Your task to perform on an android device: open app "Pluto TV - Live TV and Movies" Image 0: 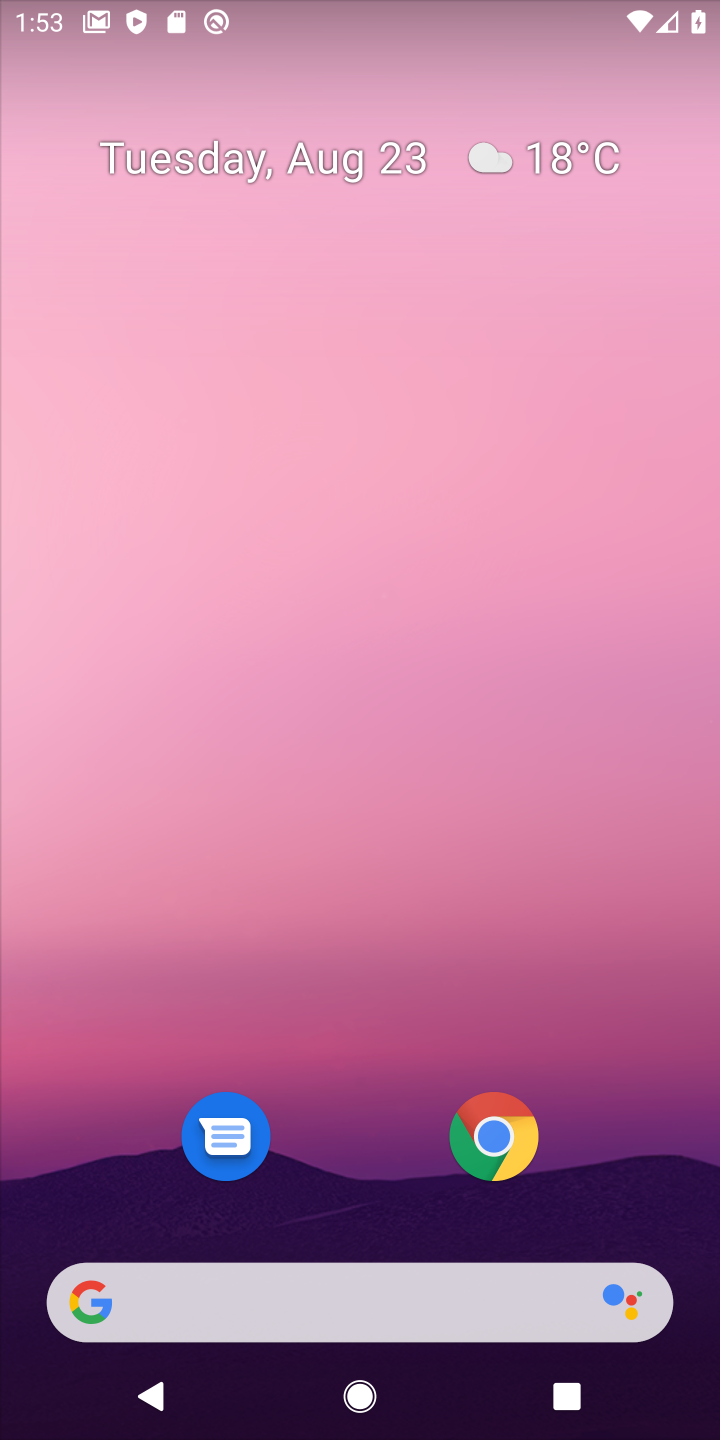
Step 0: press home button
Your task to perform on an android device: open app "Pluto TV - Live TV and Movies" Image 1: 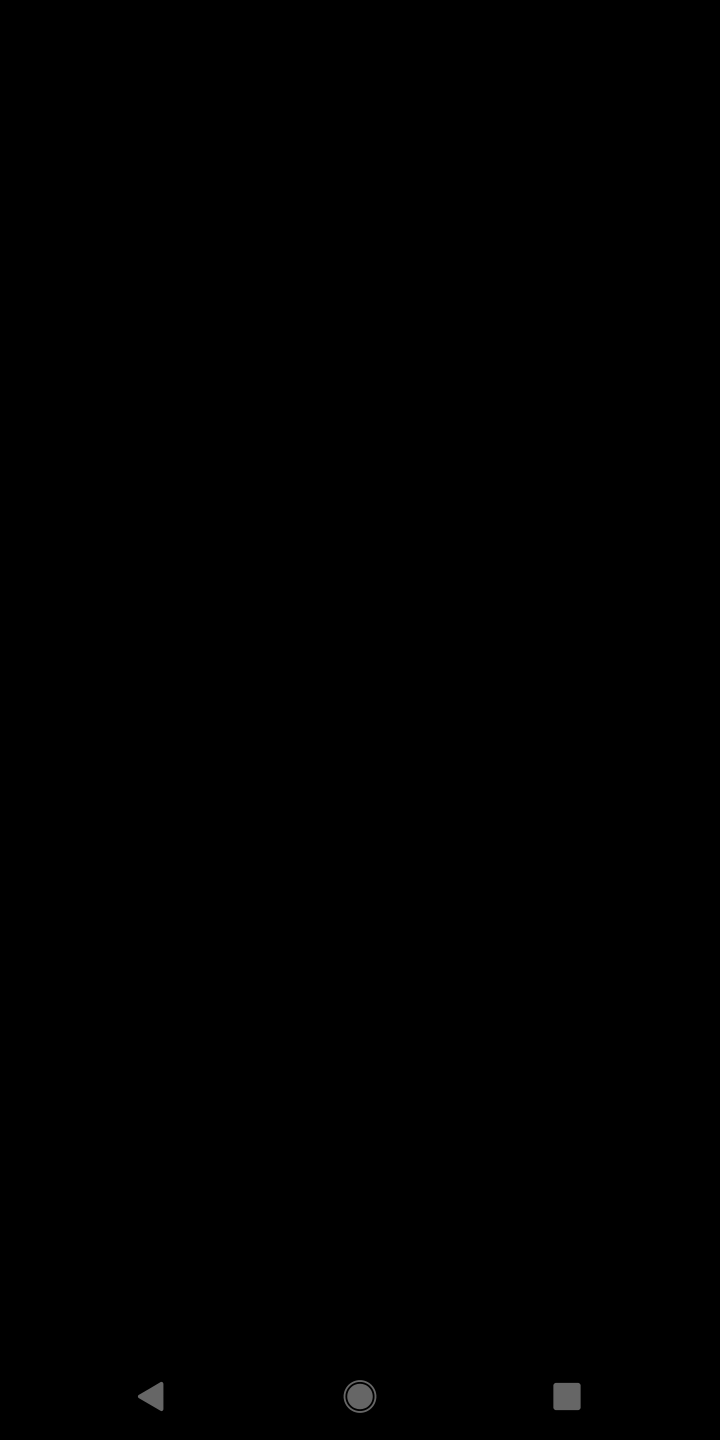
Step 1: press home button
Your task to perform on an android device: open app "Pluto TV - Live TV and Movies" Image 2: 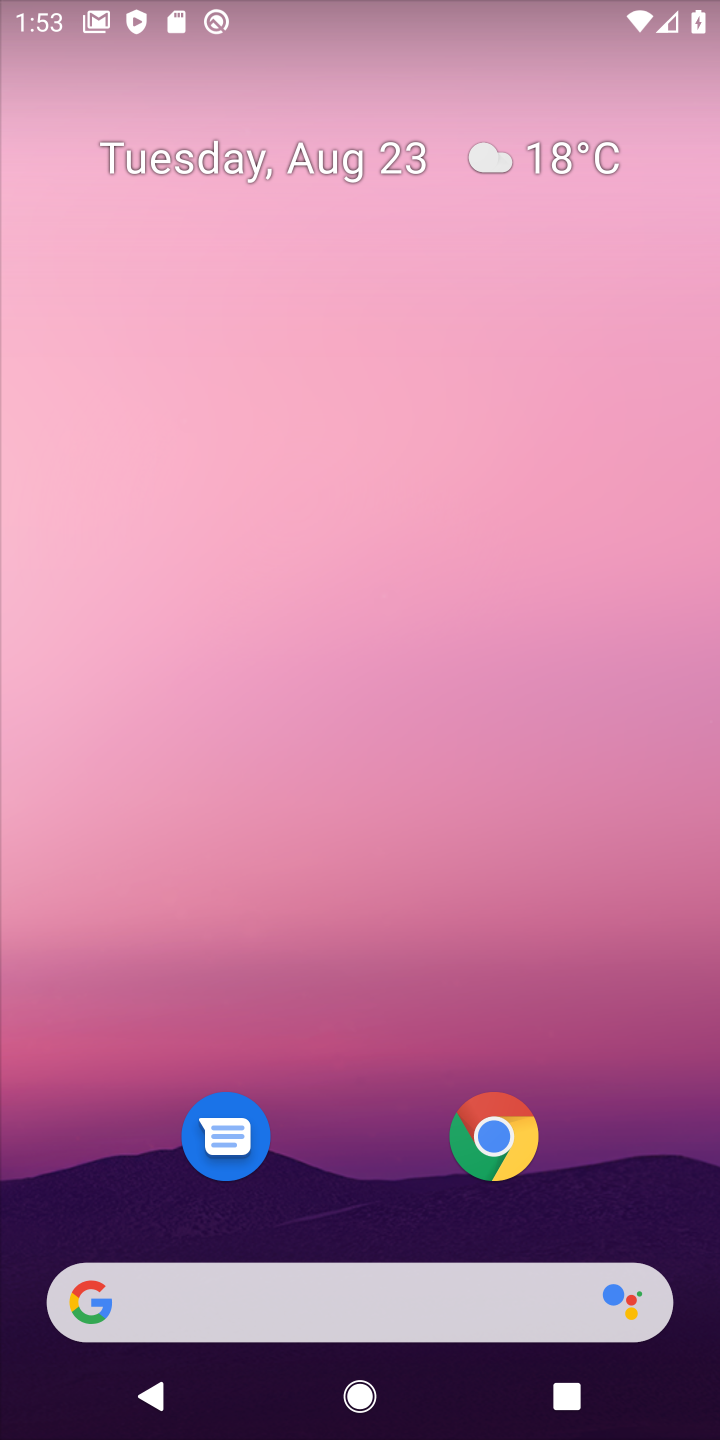
Step 2: drag from (366, 1202) to (398, 92)
Your task to perform on an android device: open app "Pluto TV - Live TV and Movies" Image 3: 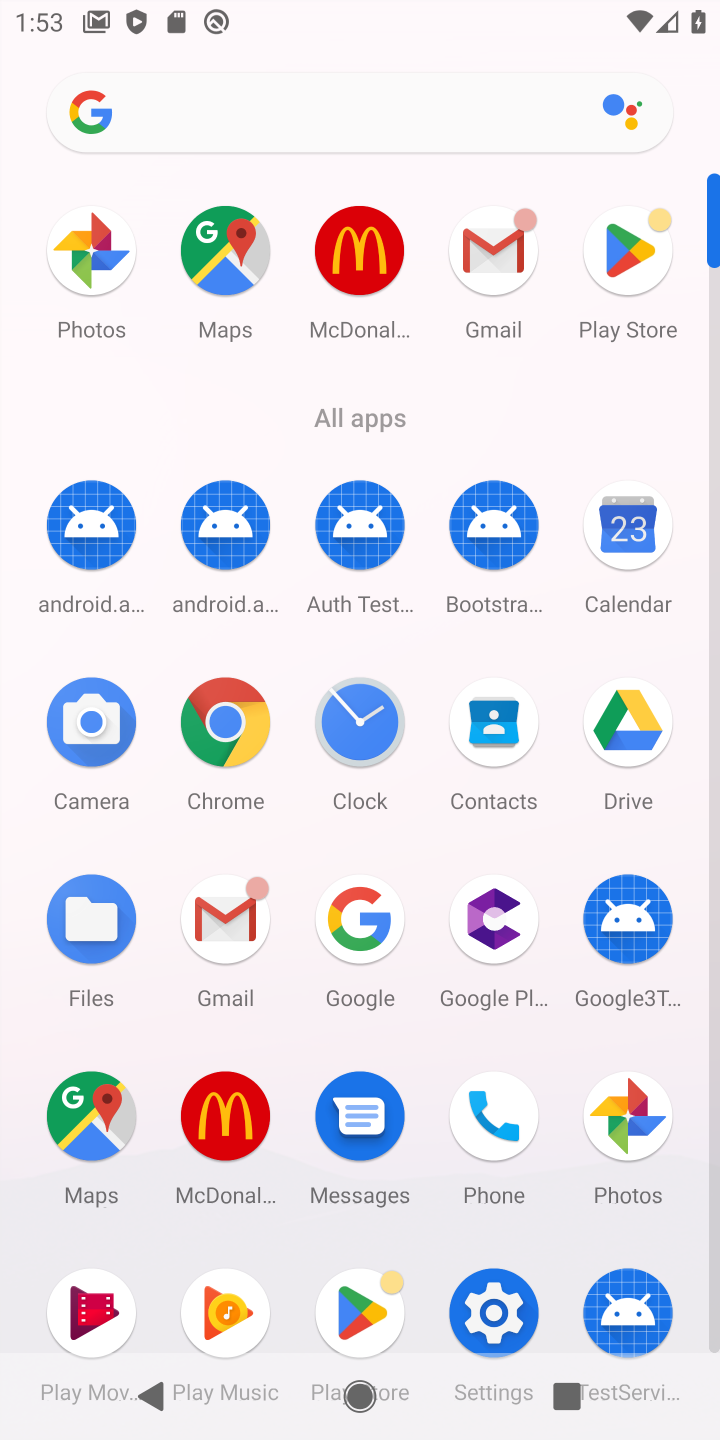
Step 3: click (614, 238)
Your task to perform on an android device: open app "Pluto TV - Live TV and Movies" Image 4: 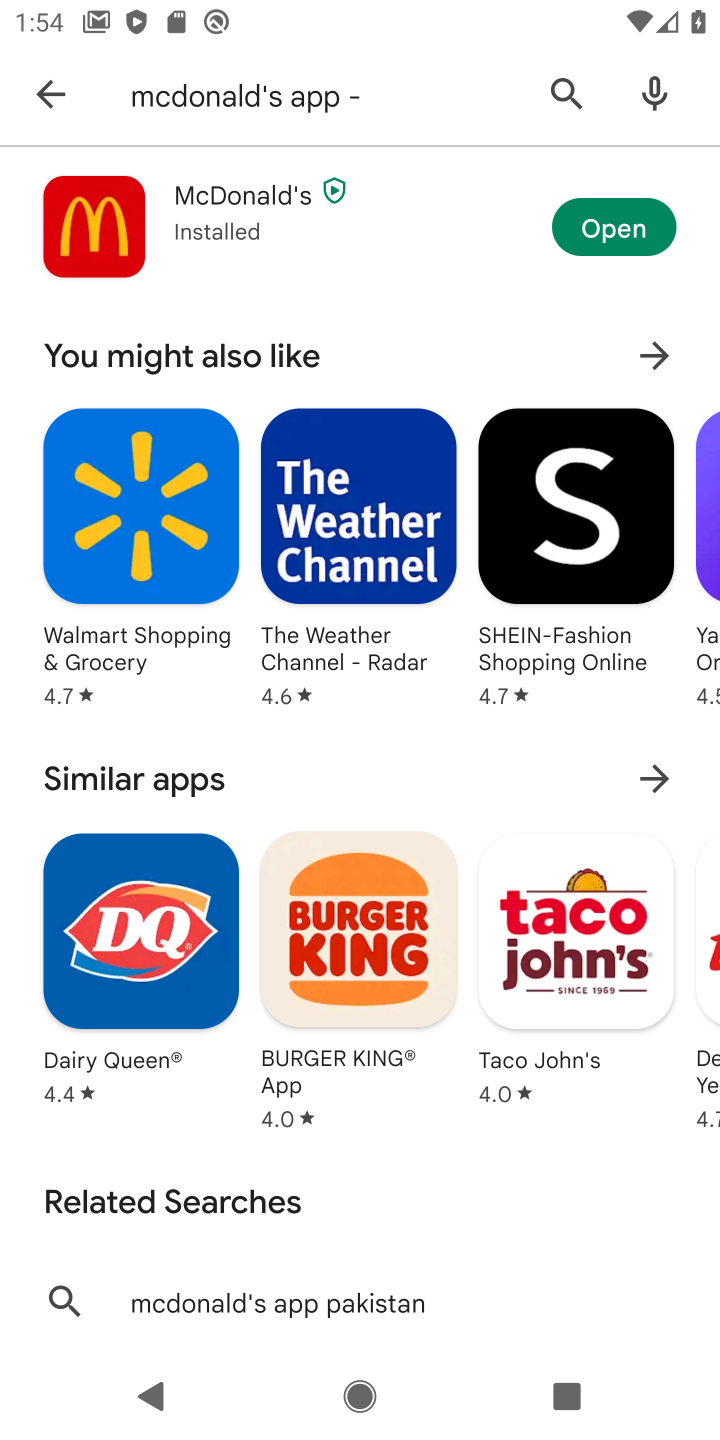
Step 4: click (561, 91)
Your task to perform on an android device: open app "Pluto TV - Live TV and Movies" Image 5: 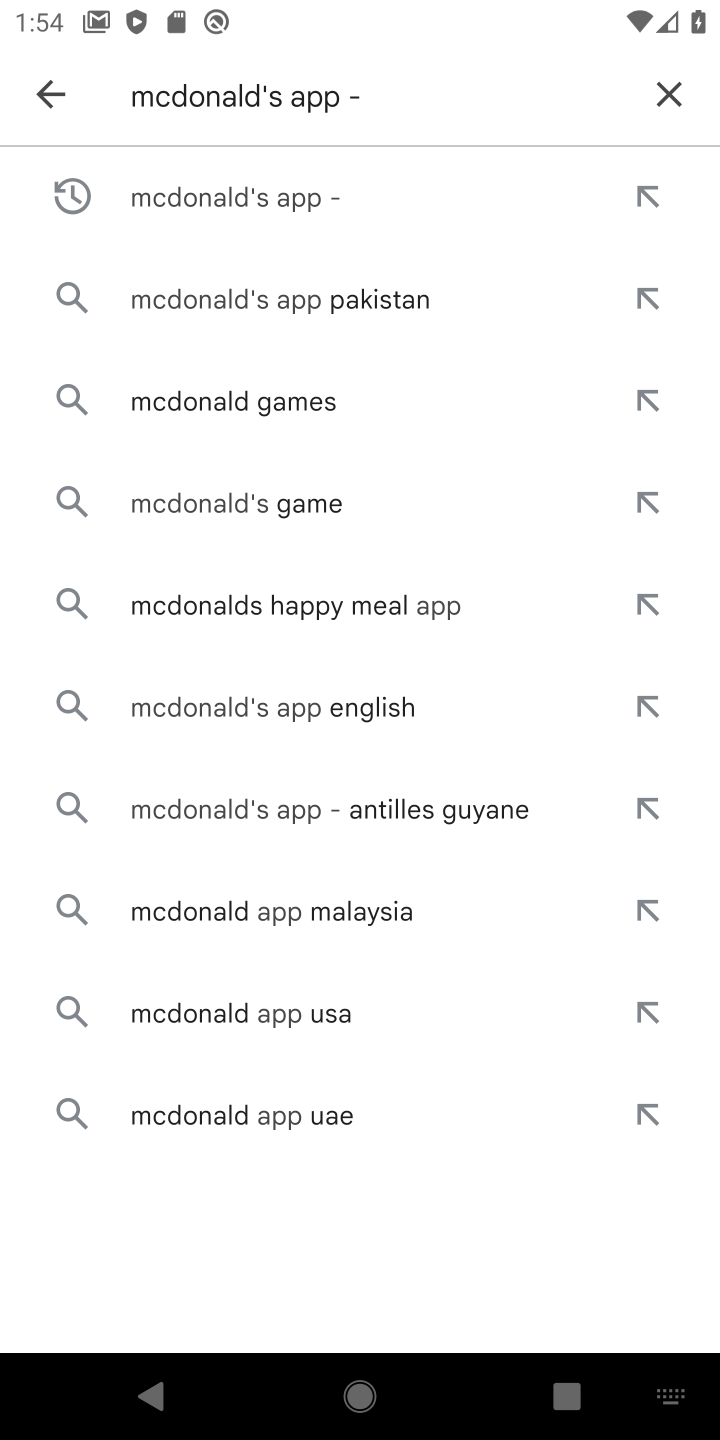
Step 5: click (670, 99)
Your task to perform on an android device: open app "Pluto TV - Live TV and Movies" Image 6: 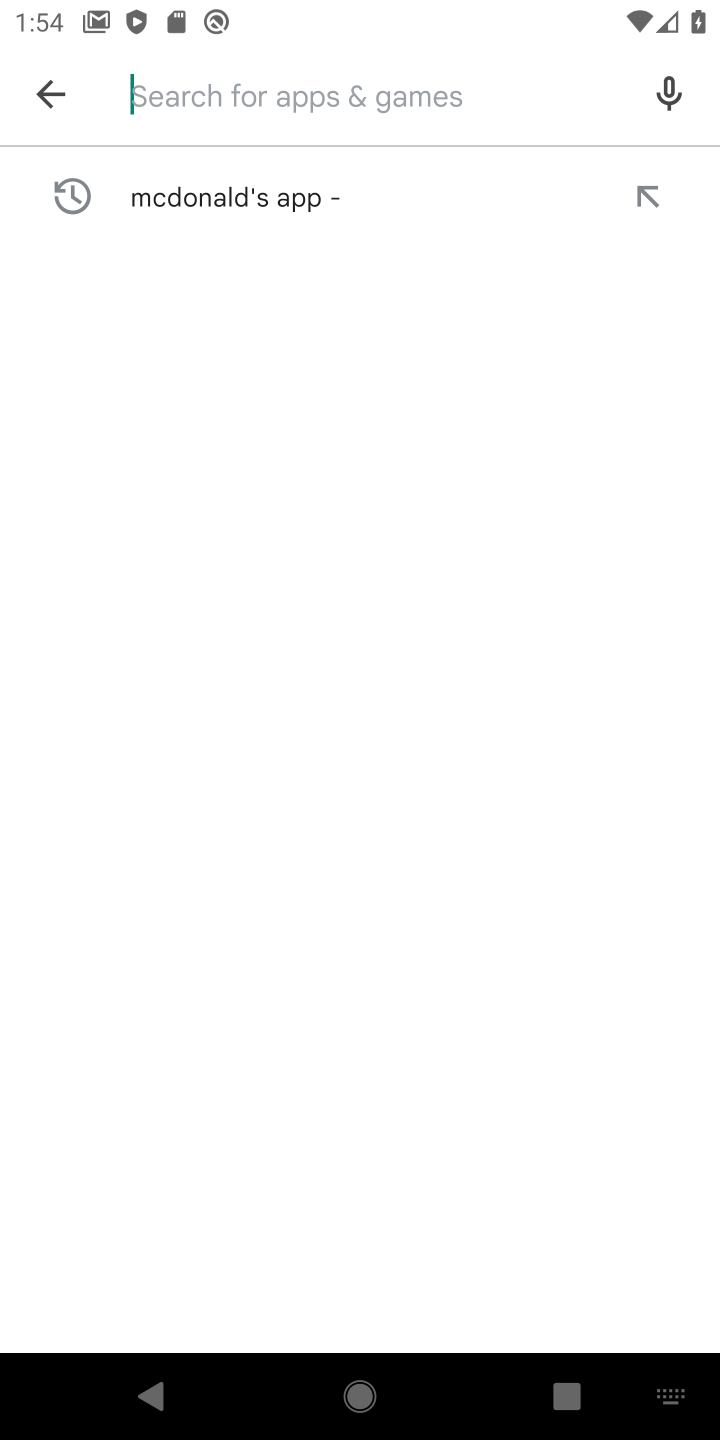
Step 6: type "Pluto TV - Live TV and Movies"
Your task to perform on an android device: open app "Pluto TV - Live TV and Movies" Image 7: 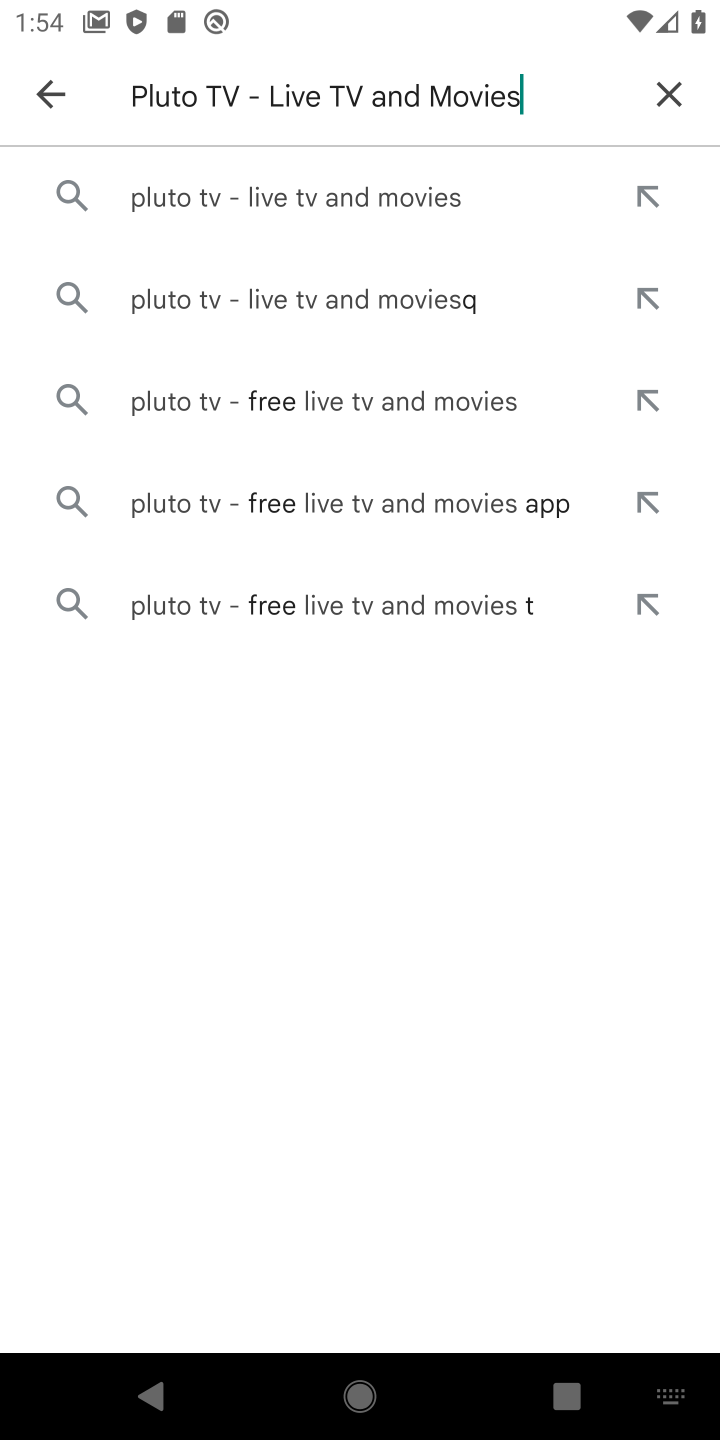
Step 7: click (226, 190)
Your task to perform on an android device: open app "Pluto TV - Live TV and Movies" Image 8: 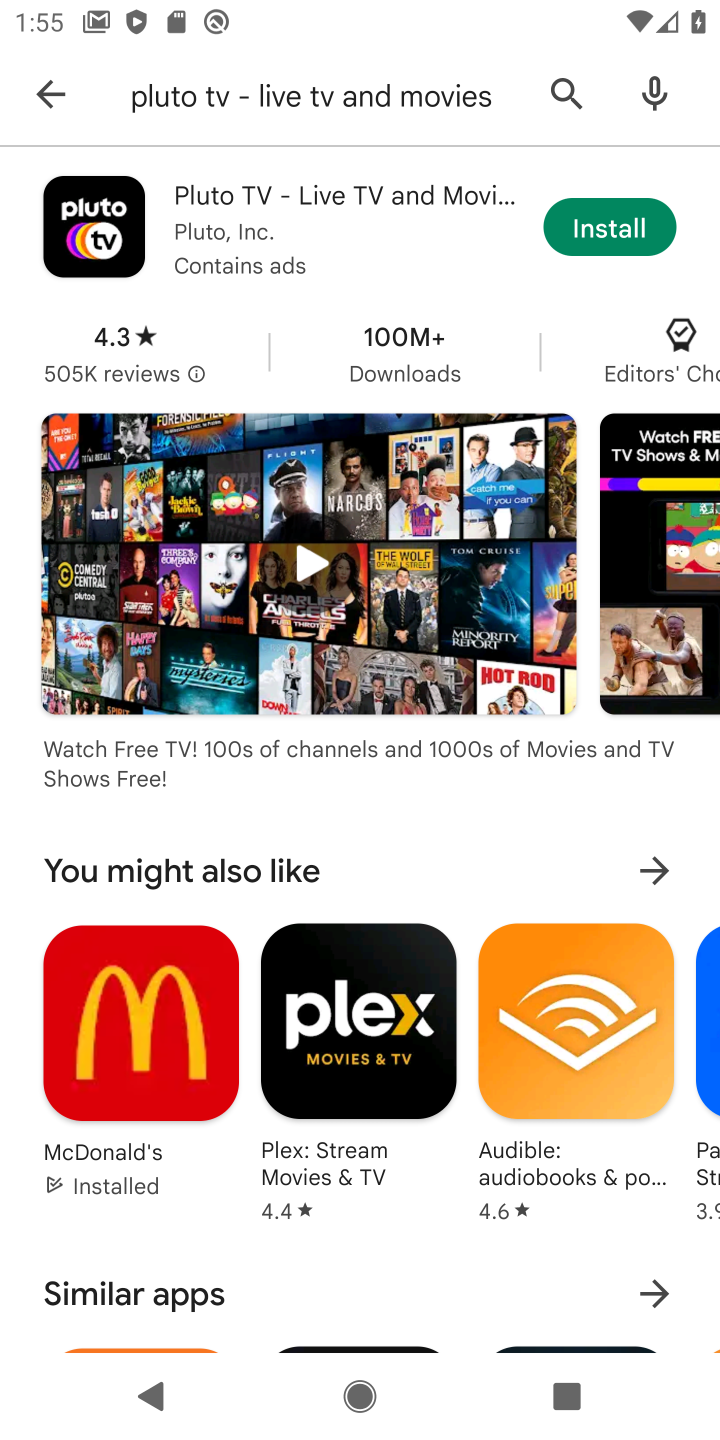
Step 8: click (617, 235)
Your task to perform on an android device: open app "Pluto TV - Live TV and Movies" Image 9: 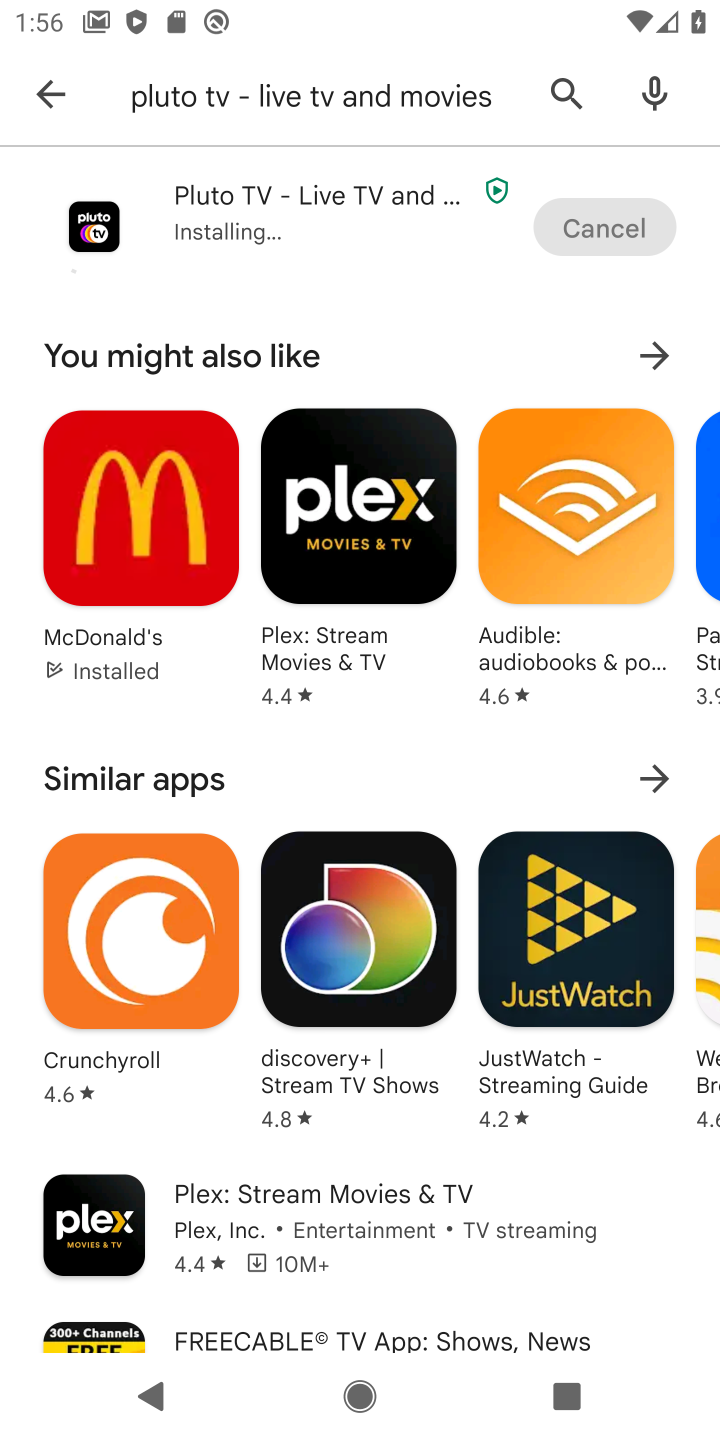
Step 9: task complete